Your task to perform on an android device: open a bookmark in the chrome app Image 0: 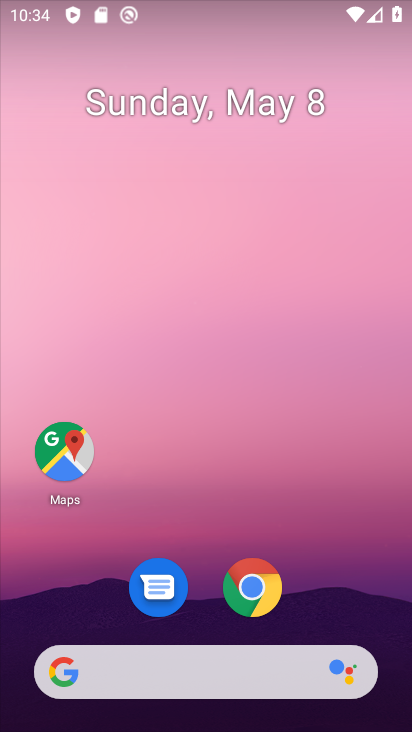
Step 0: drag from (350, 606) to (183, 73)
Your task to perform on an android device: open a bookmark in the chrome app Image 1: 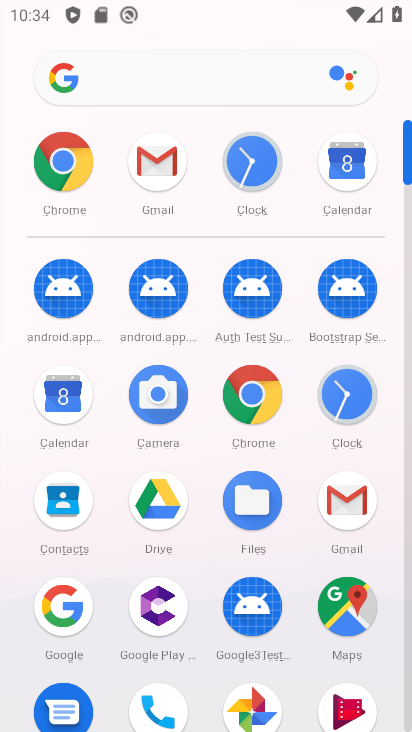
Step 1: click (56, 170)
Your task to perform on an android device: open a bookmark in the chrome app Image 2: 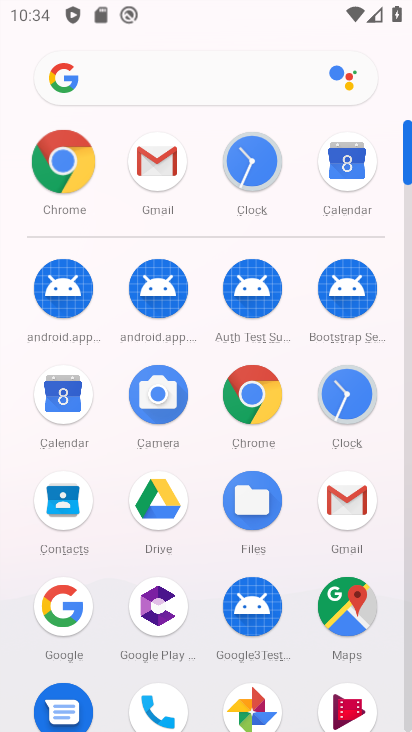
Step 2: click (59, 157)
Your task to perform on an android device: open a bookmark in the chrome app Image 3: 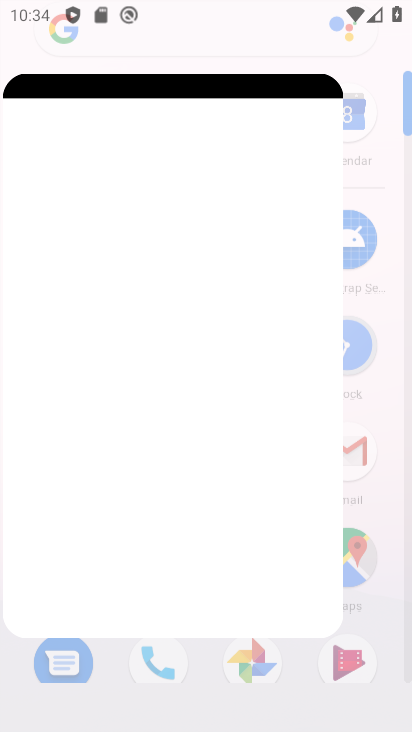
Step 3: click (59, 157)
Your task to perform on an android device: open a bookmark in the chrome app Image 4: 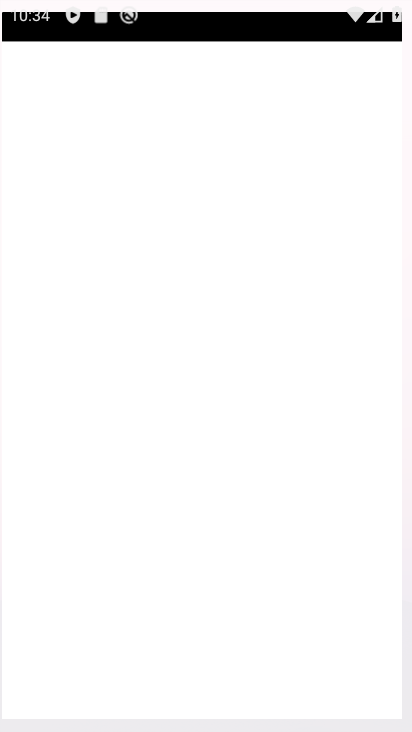
Step 4: click (60, 157)
Your task to perform on an android device: open a bookmark in the chrome app Image 5: 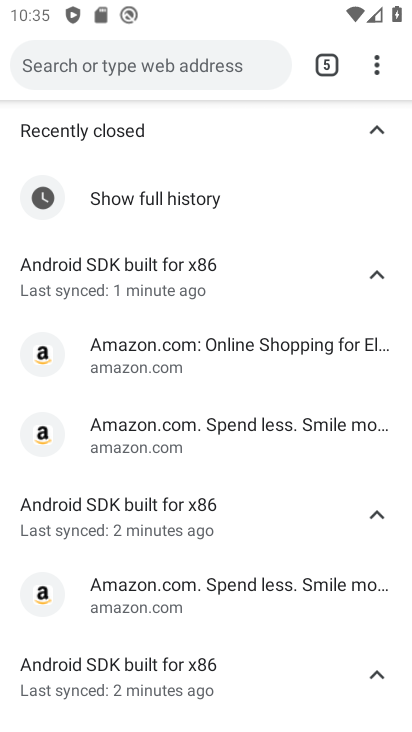
Step 5: click (374, 65)
Your task to perform on an android device: open a bookmark in the chrome app Image 6: 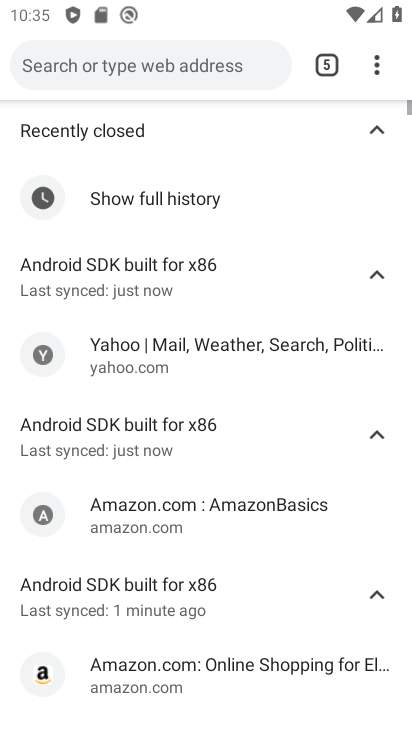
Step 6: click (378, 62)
Your task to perform on an android device: open a bookmark in the chrome app Image 7: 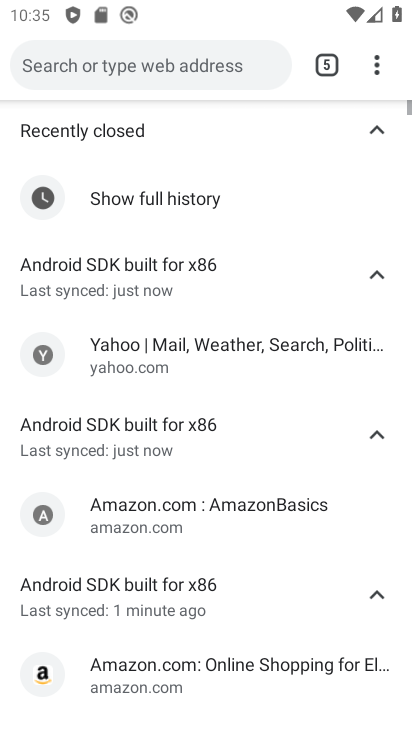
Step 7: drag from (371, 61) to (133, 243)
Your task to perform on an android device: open a bookmark in the chrome app Image 8: 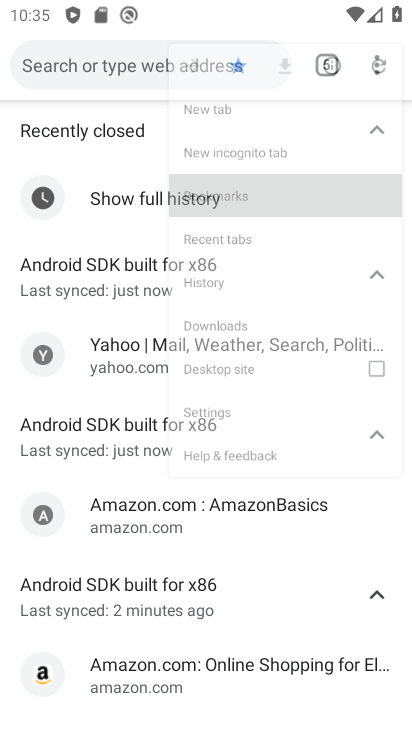
Step 8: click (133, 243)
Your task to perform on an android device: open a bookmark in the chrome app Image 9: 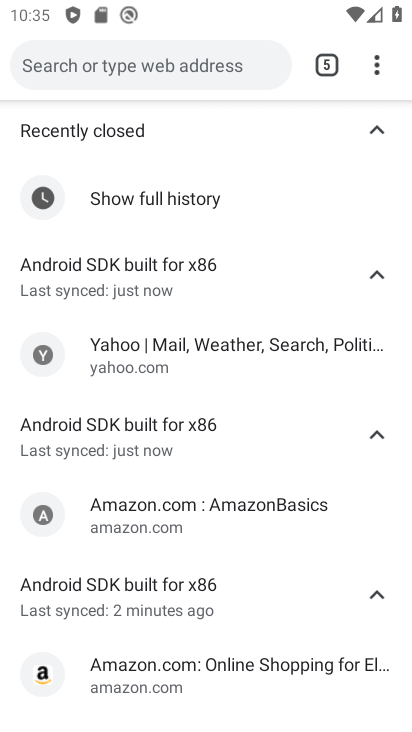
Step 9: click (133, 243)
Your task to perform on an android device: open a bookmark in the chrome app Image 10: 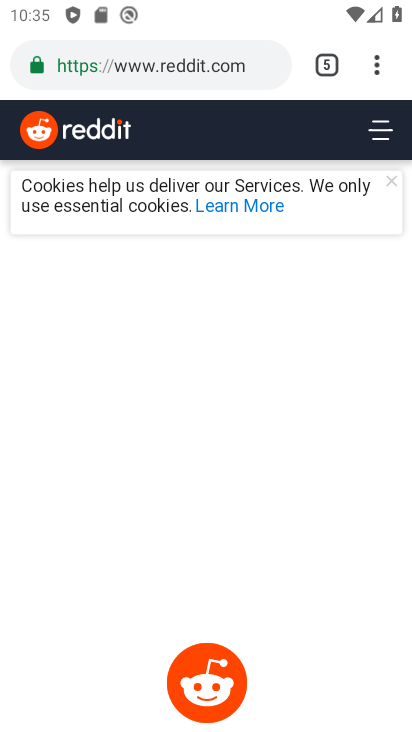
Step 10: drag from (371, 59) to (156, 258)
Your task to perform on an android device: open a bookmark in the chrome app Image 11: 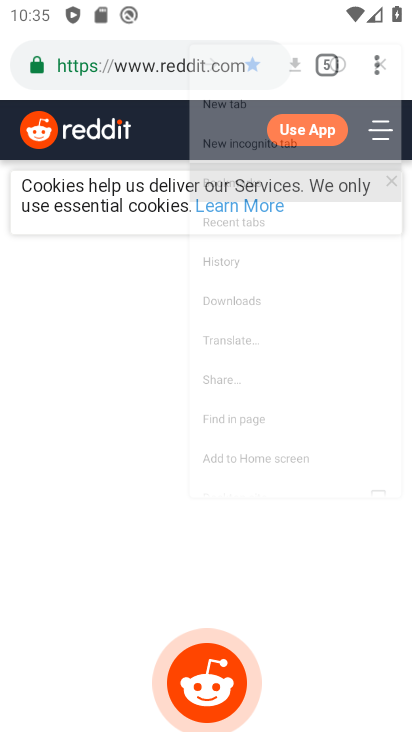
Step 11: click (156, 258)
Your task to perform on an android device: open a bookmark in the chrome app Image 12: 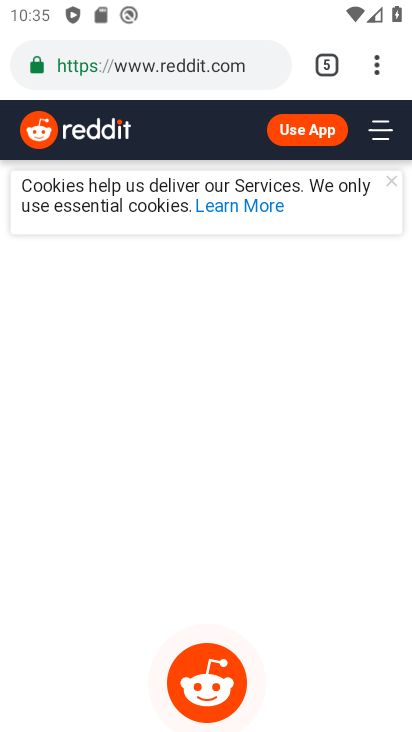
Step 12: click (156, 258)
Your task to perform on an android device: open a bookmark in the chrome app Image 13: 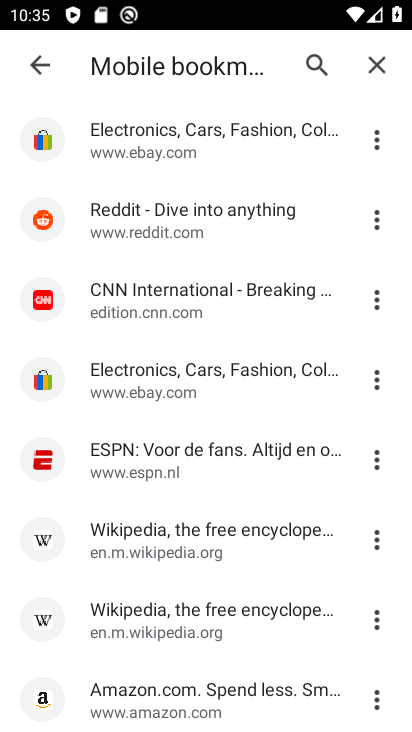
Step 13: task complete